Your task to perform on an android device: change notification settings in the gmail app Image 0: 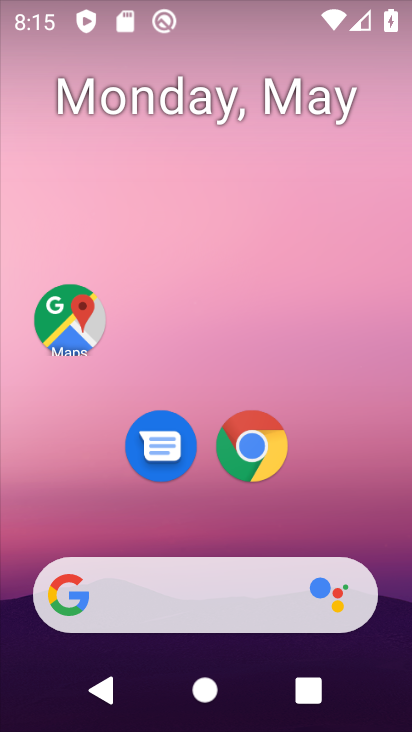
Step 0: press home button
Your task to perform on an android device: change notification settings in the gmail app Image 1: 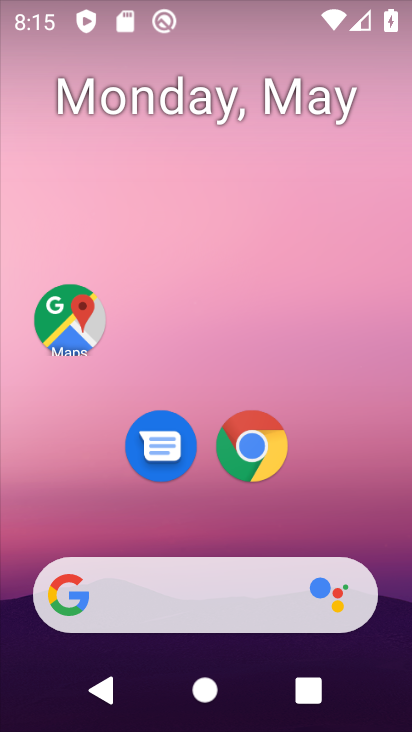
Step 1: drag from (206, 529) to (408, 184)
Your task to perform on an android device: change notification settings in the gmail app Image 2: 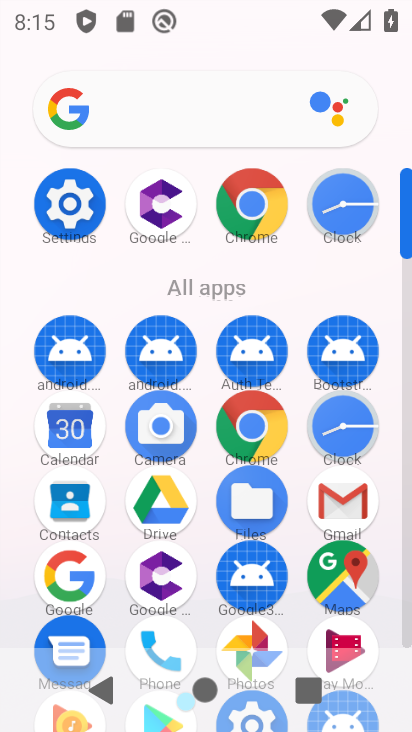
Step 2: click (340, 491)
Your task to perform on an android device: change notification settings in the gmail app Image 3: 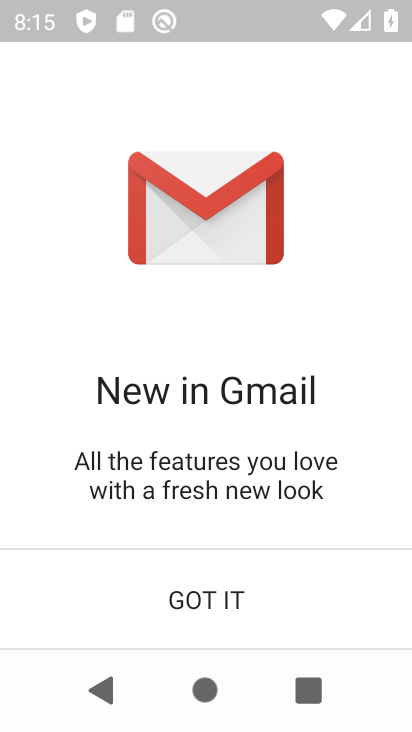
Step 3: click (214, 610)
Your task to perform on an android device: change notification settings in the gmail app Image 4: 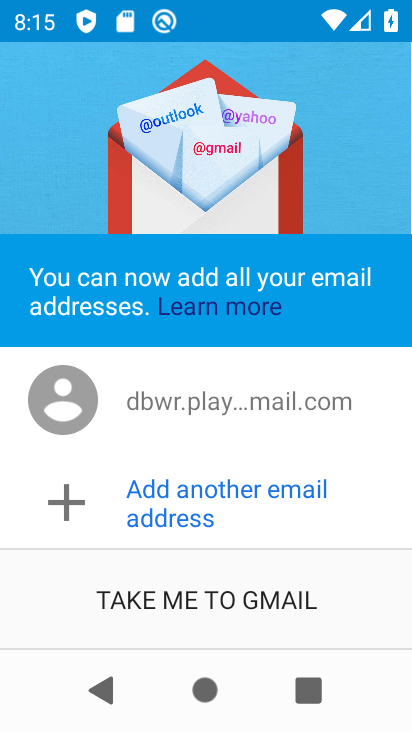
Step 4: click (201, 613)
Your task to perform on an android device: change notification settings in the gmail app Image 5: 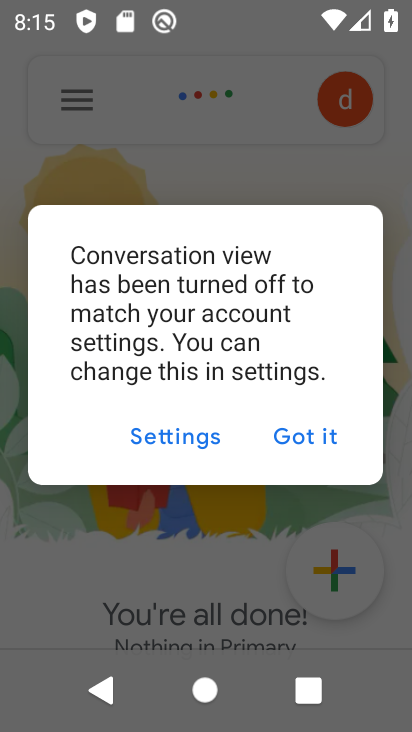
Step 5: click (303, 438)
Your task to perform on an android device: change notification settings in the gmail app Image 6: 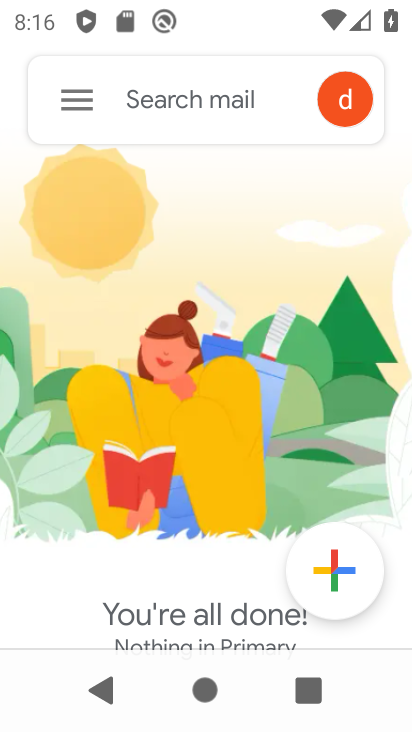
Step 6: click (70, 95)
Your task to perform on an android device: change notification settings in the gmail app Image 7: 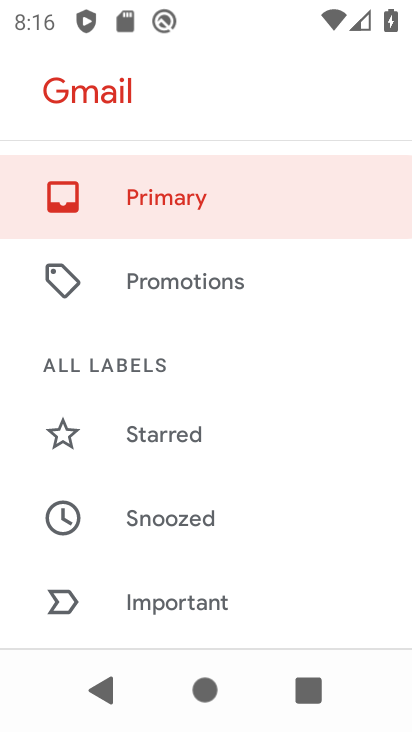
Step 7: drag from (213, 575) to (267, 107)
Your task to perform on an android device: change notification settings in the gmail app Image 8: 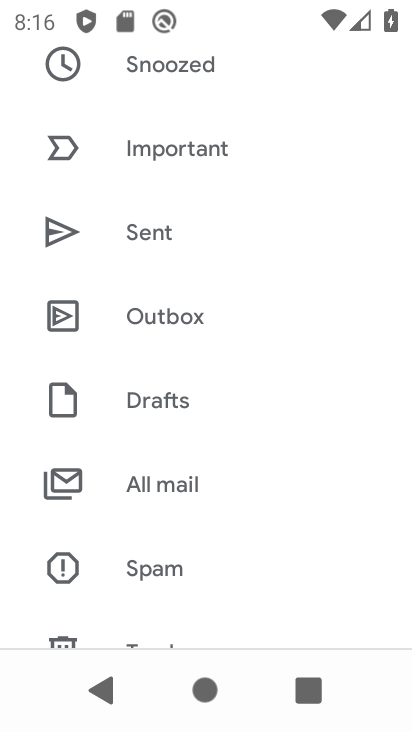
Step 8: drag from (234, 597) to (292, 98)
Your task to perform on an android device: change notification settings in the gmail app Image 9: 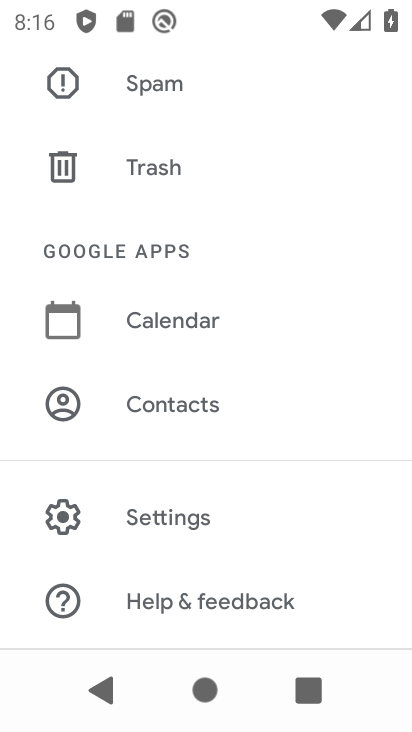
Step 9: click (219, 514)
Your task to perform on an android device: change notification settings in the gmail app Image 10: 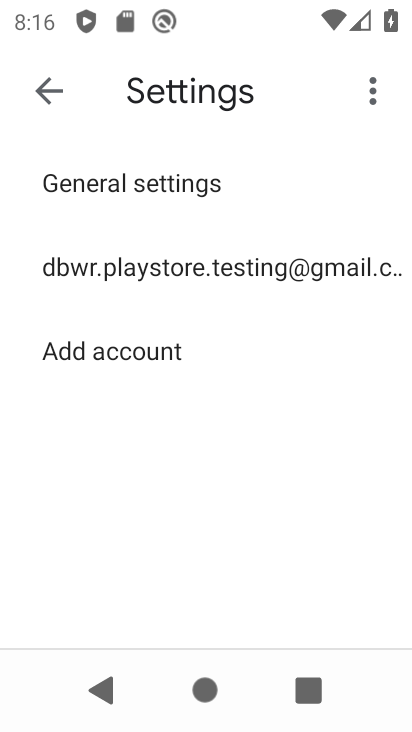
Step 10: click (236, 177)
Your task to perform on an android device: change notification settings in the gmail app Image 11: 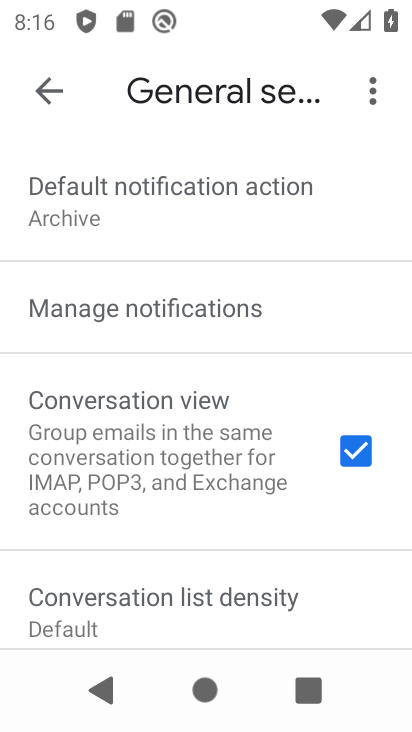
Step 11: click (274, 309)
Your task to perform on an android device: change notification settings in the gmail app Image 12: 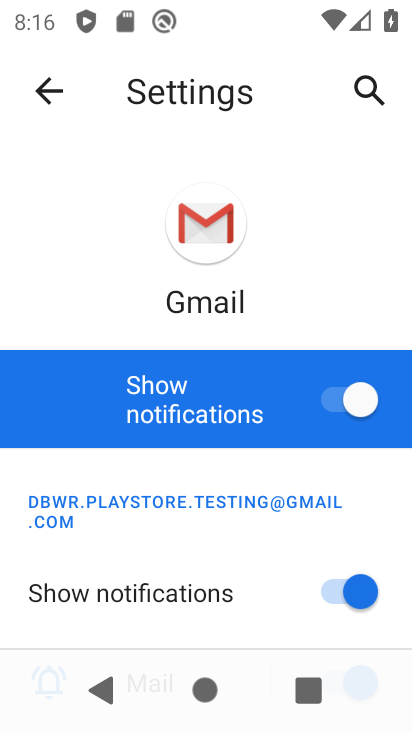
Step 12: click (344, 396)
Your task to perform on an android device: change notification settings in the gmail app Image 13: 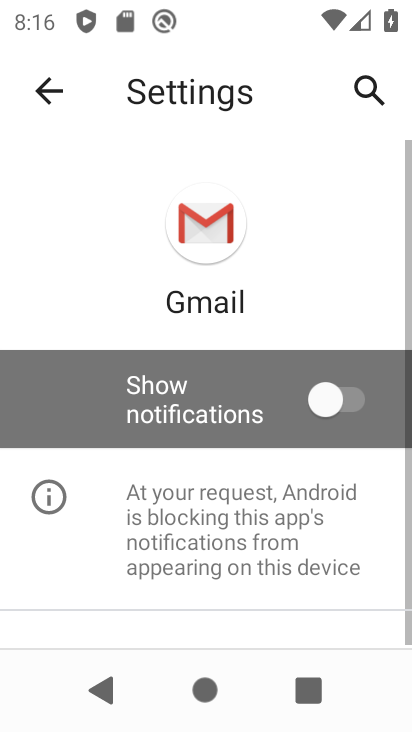
Step 13: task complete